Your task to perform on an android device: clear history in the chrome app Image 0: 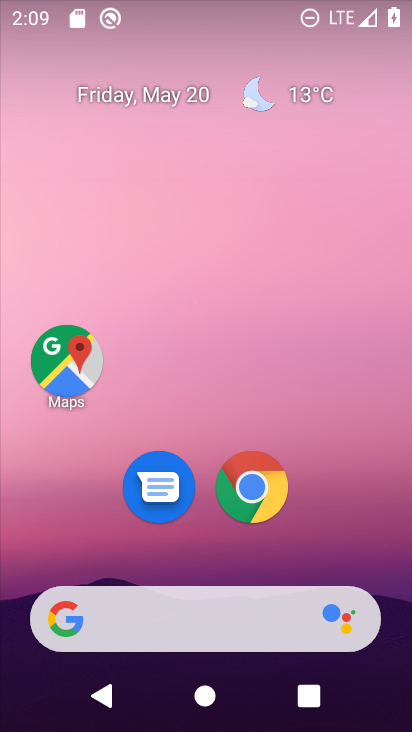
Step 0: click (247, 475)
Your task to perform on an android device: clear history in the chrome app Image 1: 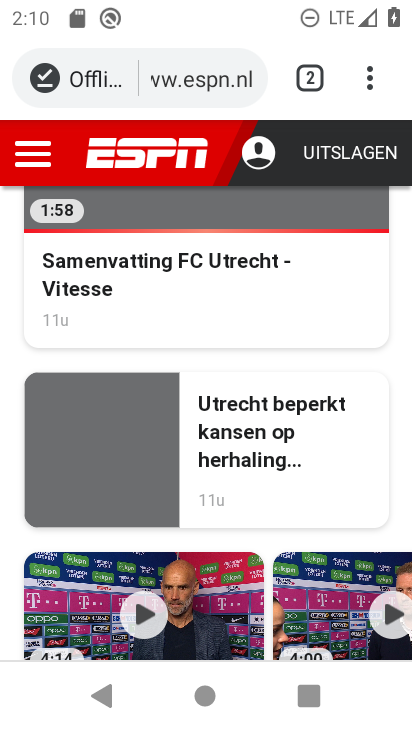
Step 1: click (381, 66)
Your task to perform on an android device: clear history in the chrome app Image 2: 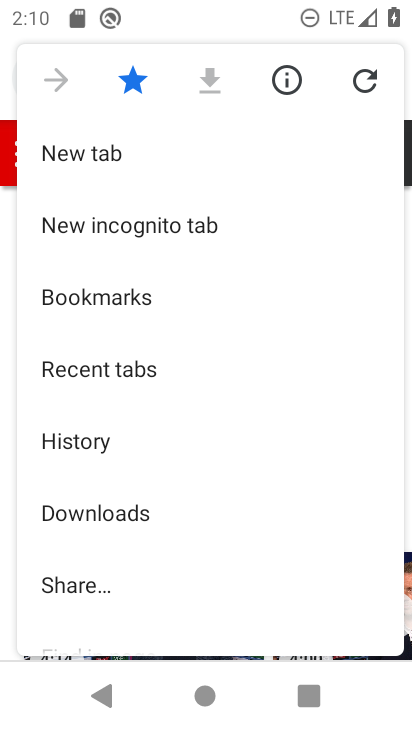
Step 2: click (124, 442)
Your task to perform on an android device: clear history in the chrome app Image 3: 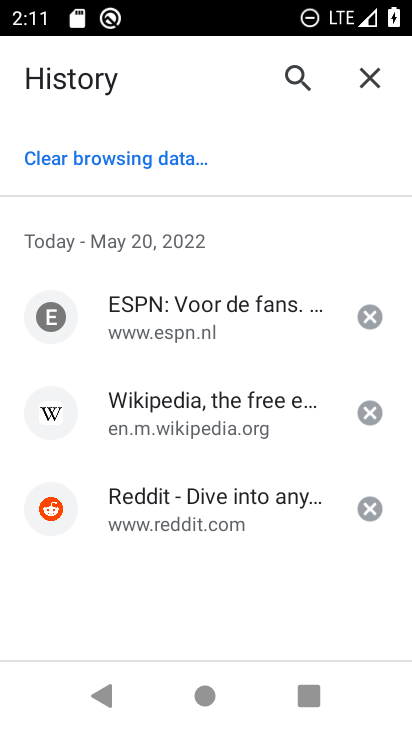
Step 3: click (96, 155)
Your task to perform on an android device: clear history in the chrome app Image 4: 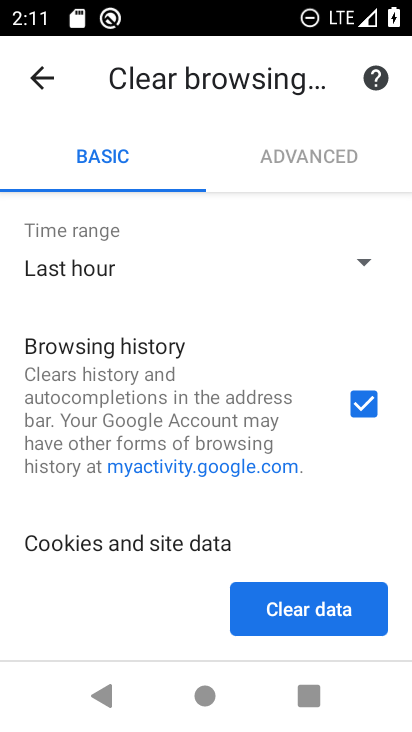
Step 4: click (363, 256)
Your task to perform on an android device: clear history in the chrome app Image 5: 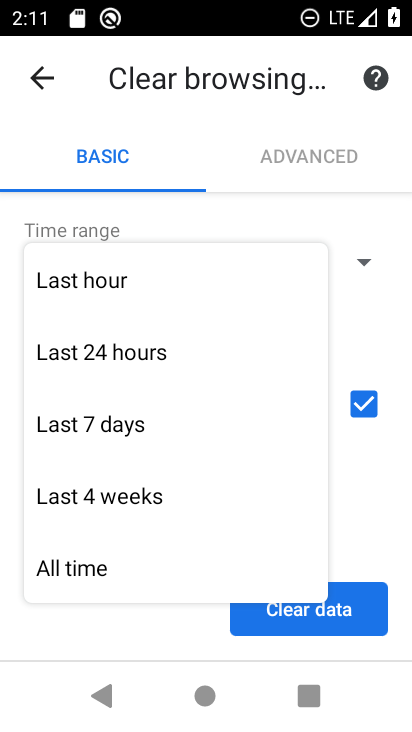
Step 5: click (142, 564)
Your task to perform on an android device: clear history in the chrome app Image 6: 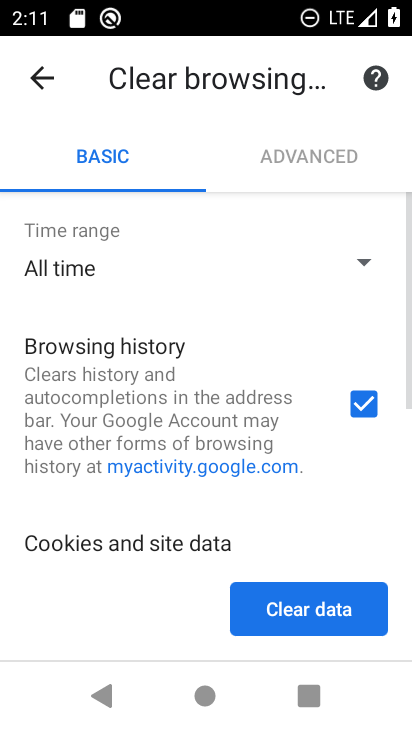
Step 6: drag from (259, 504) to (280, 131)
Your task to perform on an android device: clear history in the chrome app Image 7: 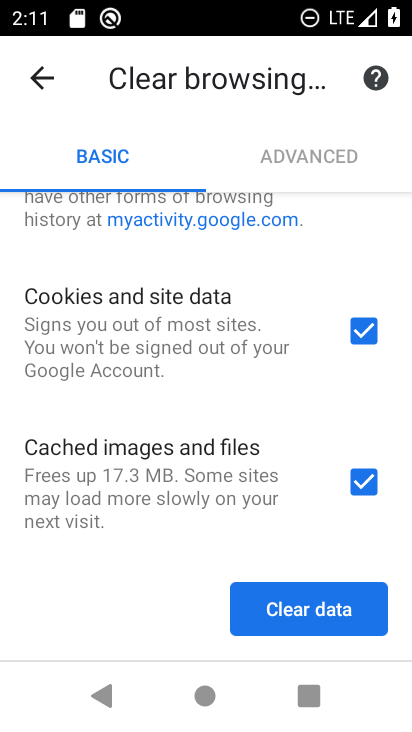
Step 7: click (303, 611)
Your task to perform on an android device: clear history in the chrome app Image 8: 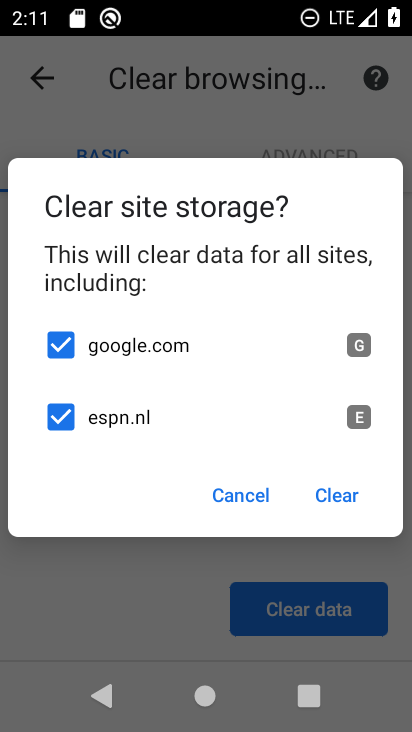
Step 8: click (329, 493)
Your task to perform on an android device: clear history in the chrome app Image 9: 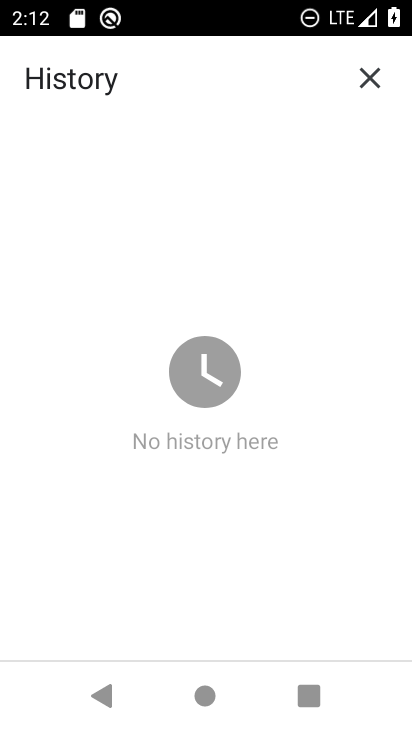
Step 9: task complete